Your task to perform on an android device: check data usage Image 0: 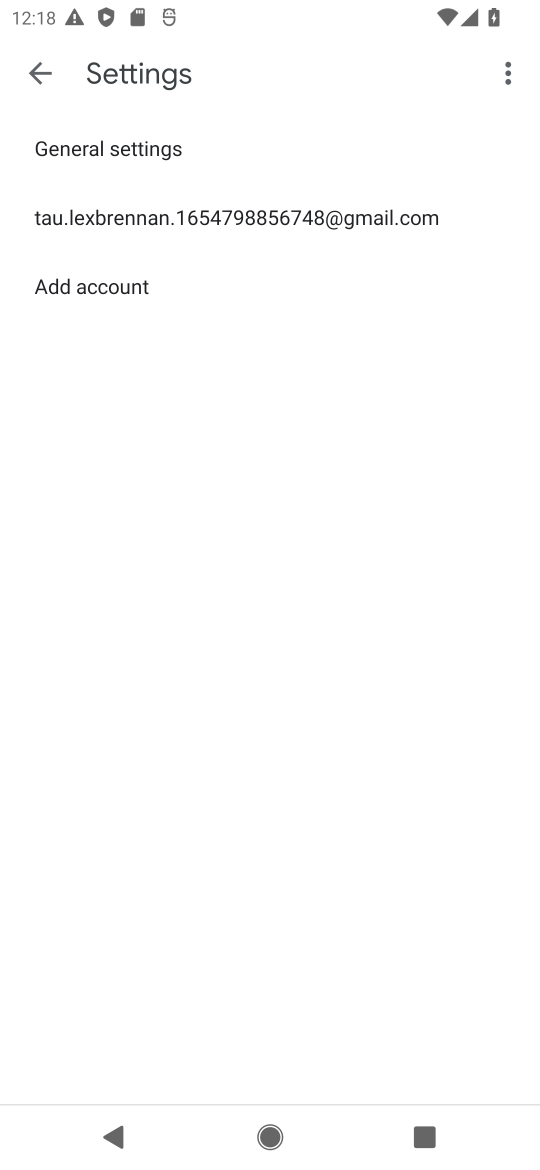
Step 0: press back button
Your task to perform on an android device: check data usage Image 1: 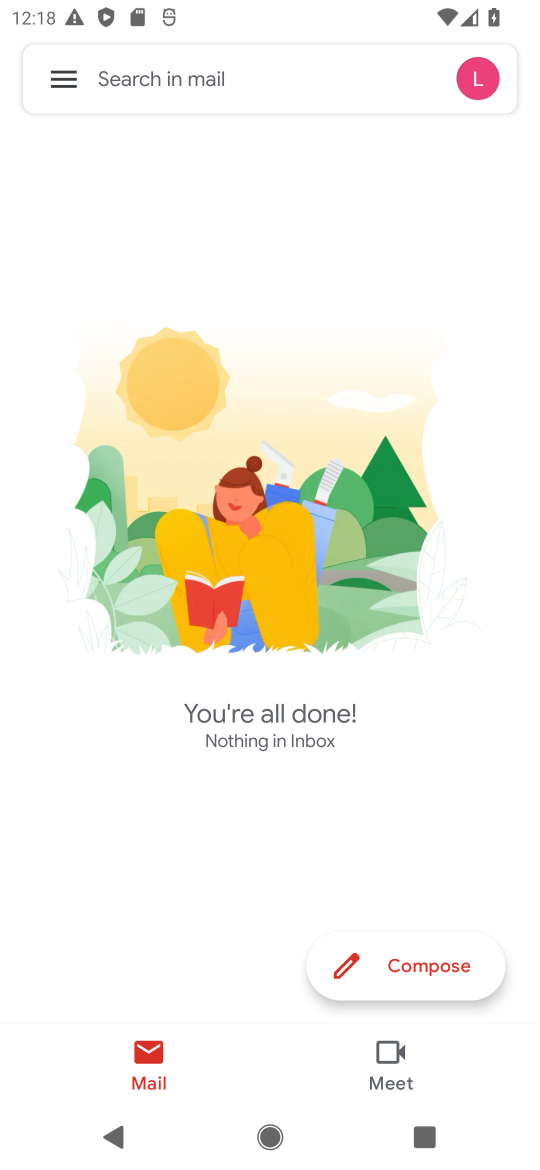
Step 1: press back button
Your task to perform on an android device: check data usage Image 2: 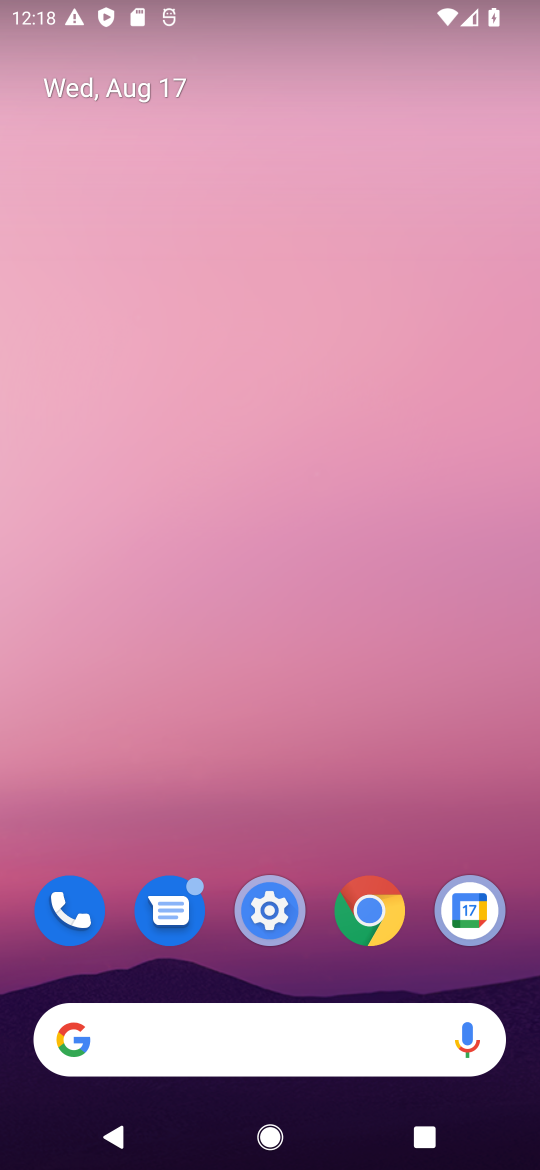
Step 2: click (282, 909)
Your task to perform on an android device: check data usage Image 3: 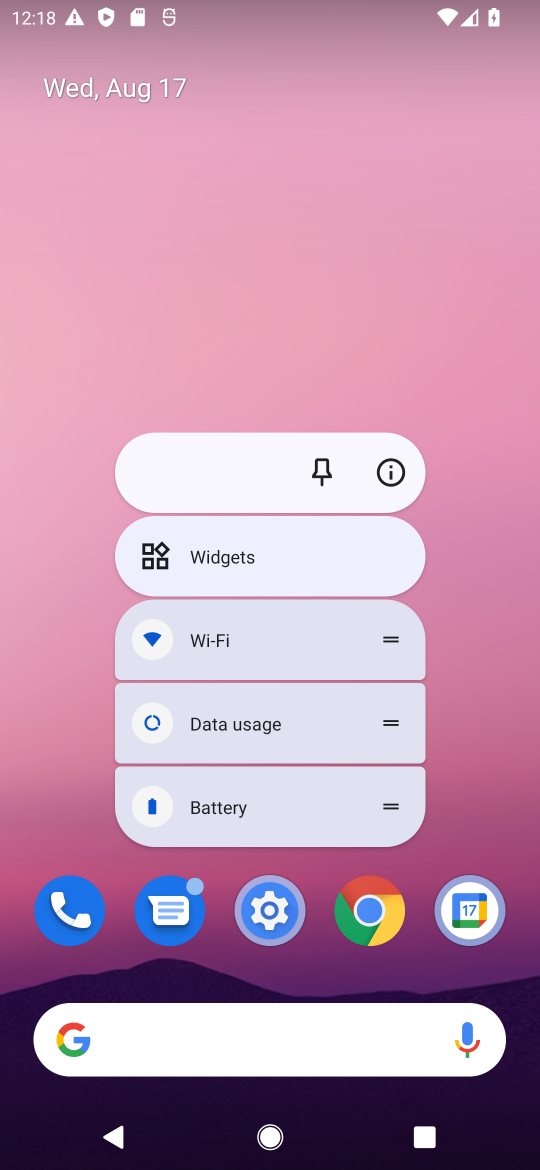
Step 3: click (266, 914)
Your task to perform on an android device: check data usage Image 4: 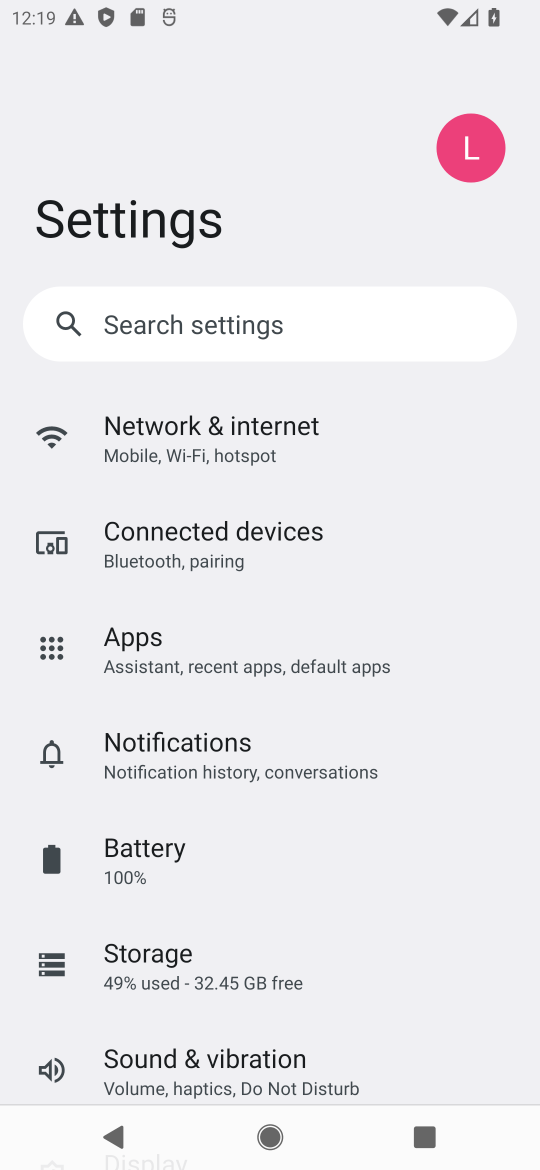
Step 4: click (281, 438)
Your task to perform on an android device: check data usage Image 5: 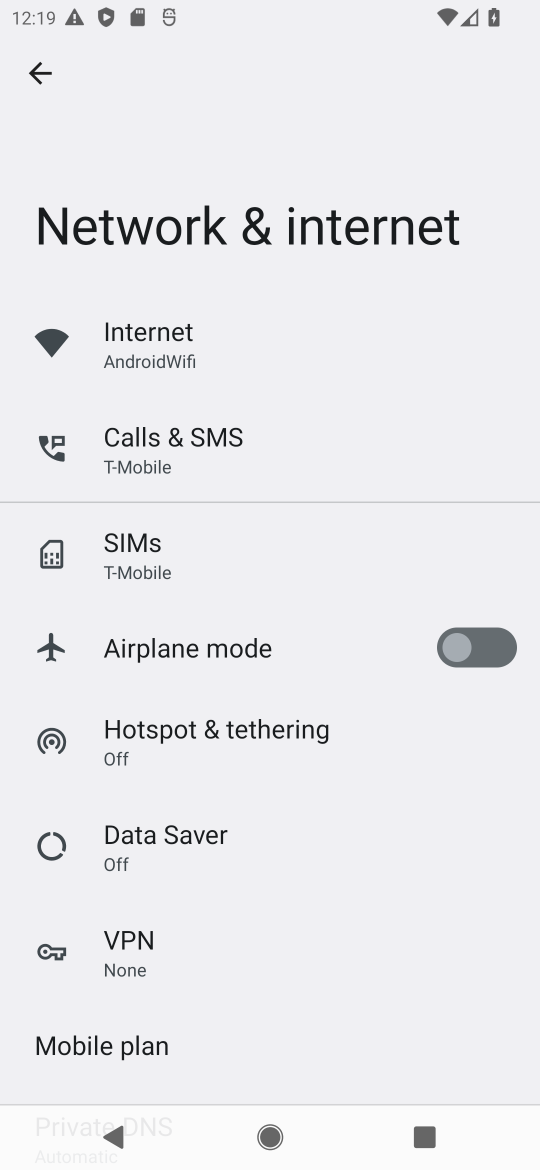
Step 5: click (192, 349)
Your task to perform on an android device: check data usage Image 6: 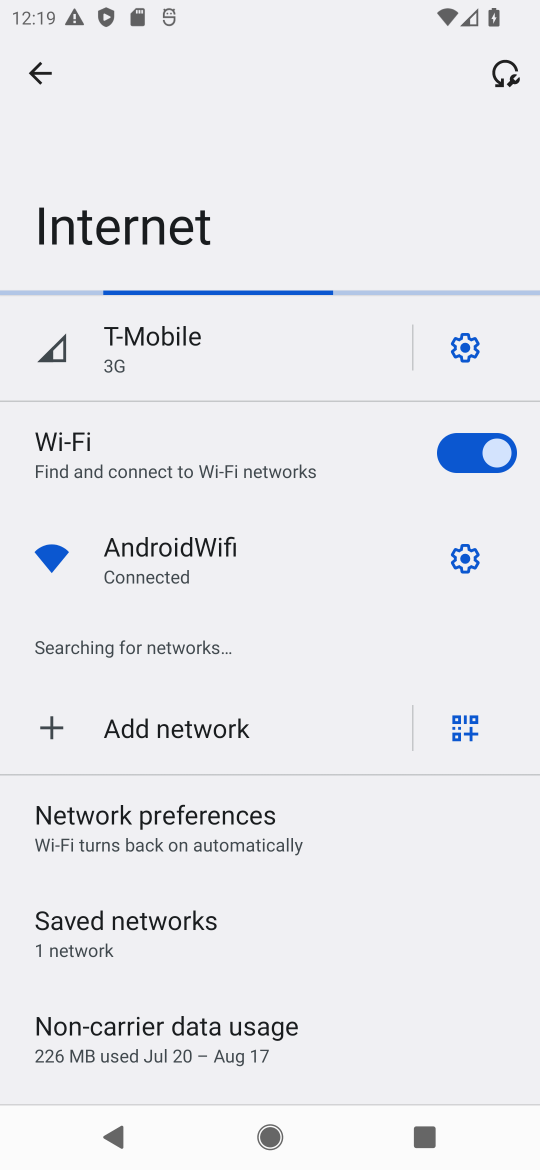
Step 6: click (198, 1049)
Your task to perform on an android device: check data usage Image 7: 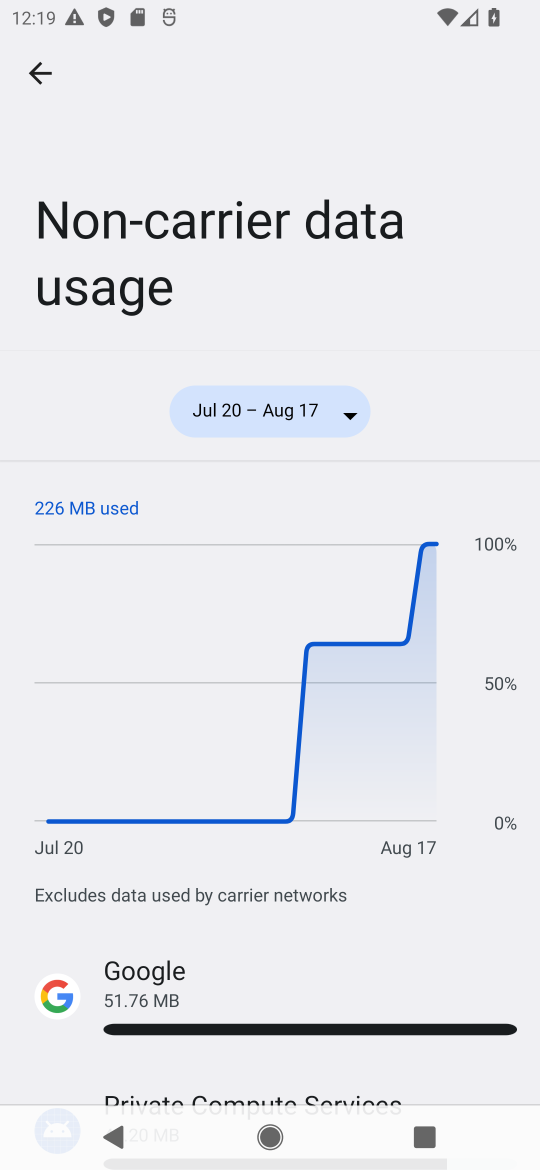
Step 7: task complete